Your task to perform on an android device: toggle notifications settings in the gmail app Image 0: 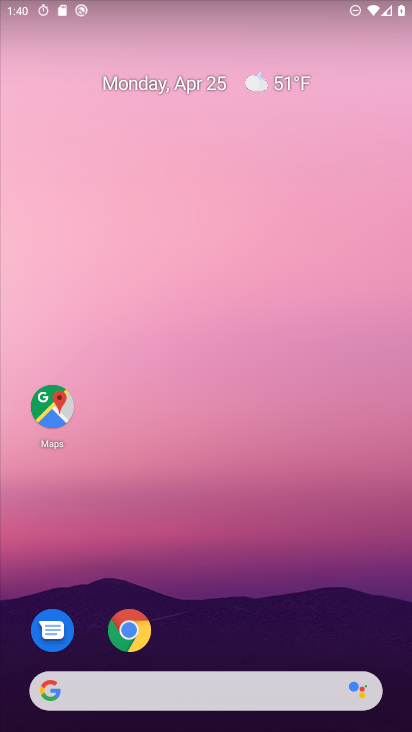
Step 0: drag from (208, 601) to (300, 285)
Your task to perform on an android device: toggle notifications settings in the gmail app Image 1: 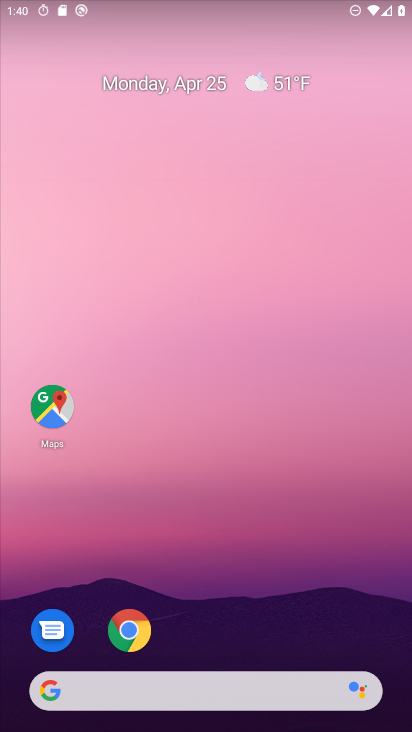
Step 1: click (261, 104)
Your task to perform on an android device: toggle notifications settings in the gmail app Image 2: 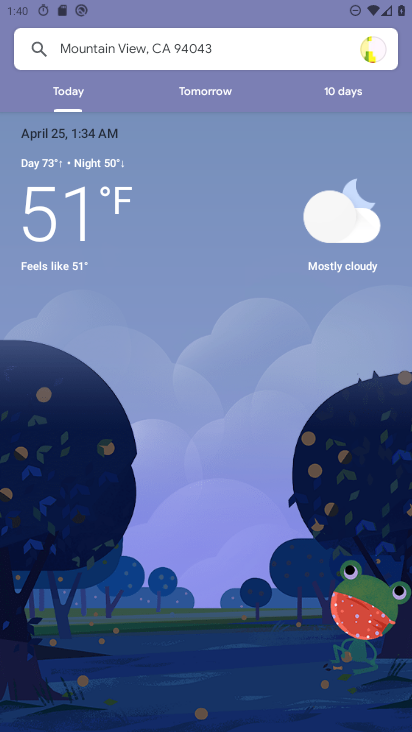
Step 2: press home button
Your task to perform on an android device: toggle notifications settings in the gmail app Image 3: 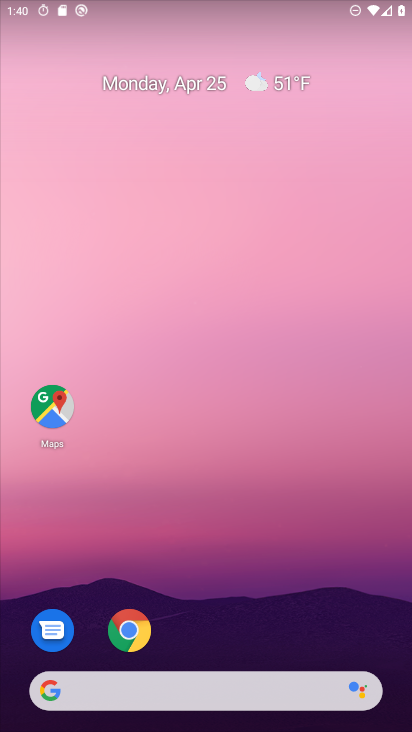
Step 3: drag from (219, 548) to (292, 125)
Your task to perform on an android device: toggle notifications settings in the gmail app Image 4: 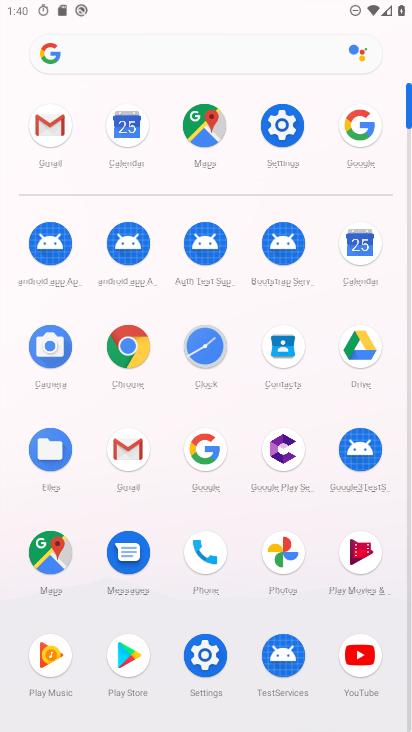
Step 4: click (125, 450)
Your task to perform on an android device: toggle notifications settings in the gmail app Image 5: 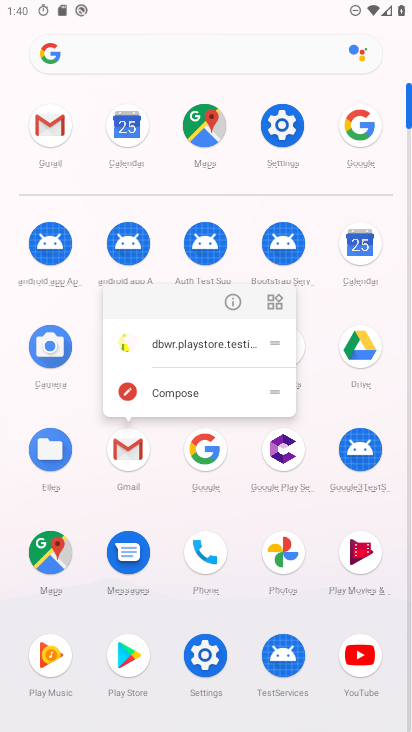
Step 5: click (231, 293)
Your task to perform on an android device: toggle notifications settings in the gmail app Image 6: 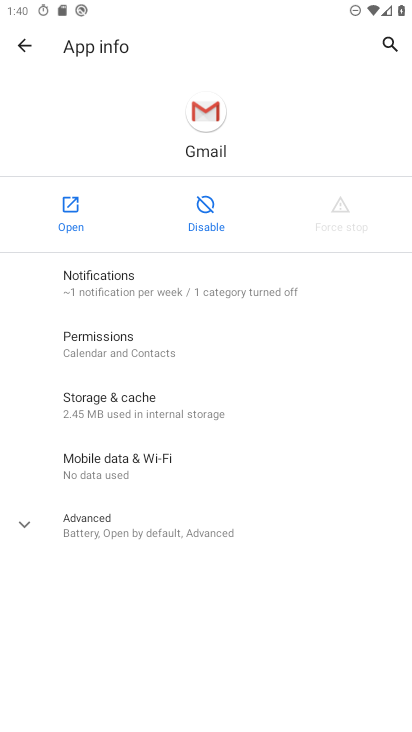
Step 6: click (77, 208)
Your task to perform on an android device: toggle notifications settings in the gmail app Image 7: 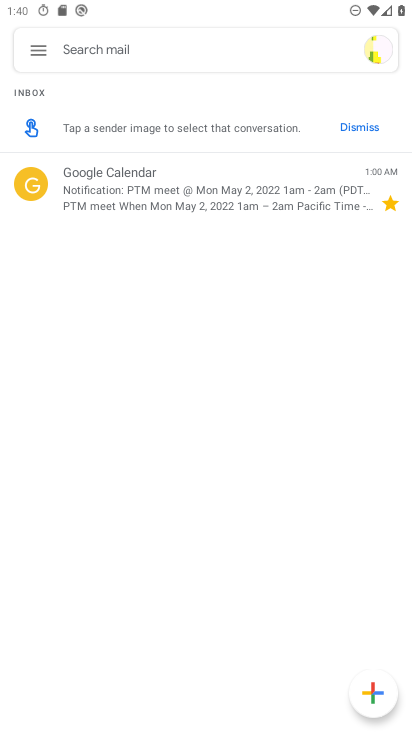
Step 7: drag from (190, 633) to (202, 279)
Your task to perform on an android device: toggle notifications settings in the gmail app Image 8: 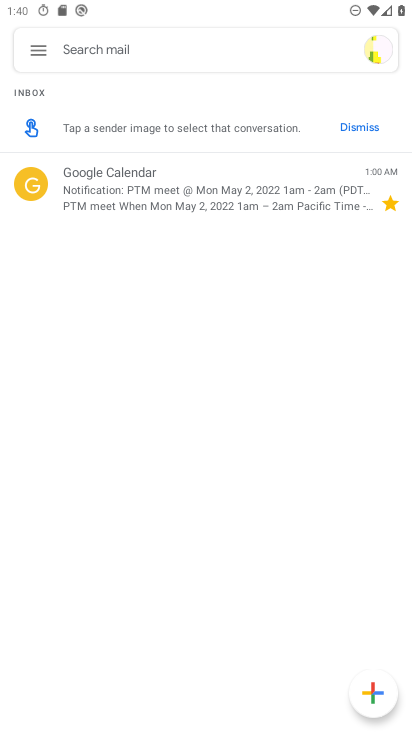
Step 8: click (41, 56)
Your task to perform on an android device: toggle notifications settings in the gmail app Image 9: 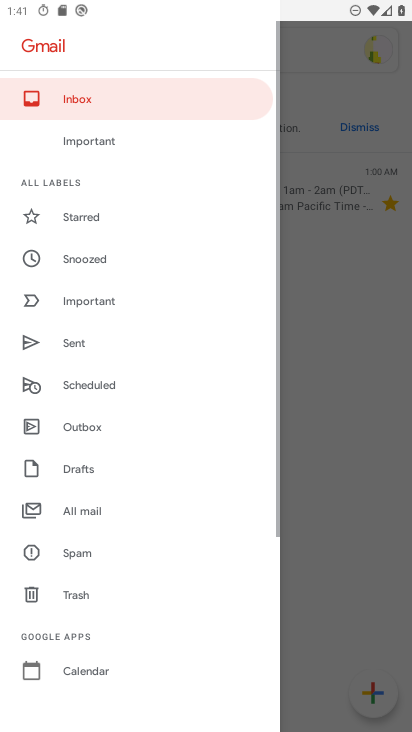
Step 9: drag from (129, 650) to (198, 139)
Your task to perform on an android device: toggle notifications settings in the gmail app Image 10: 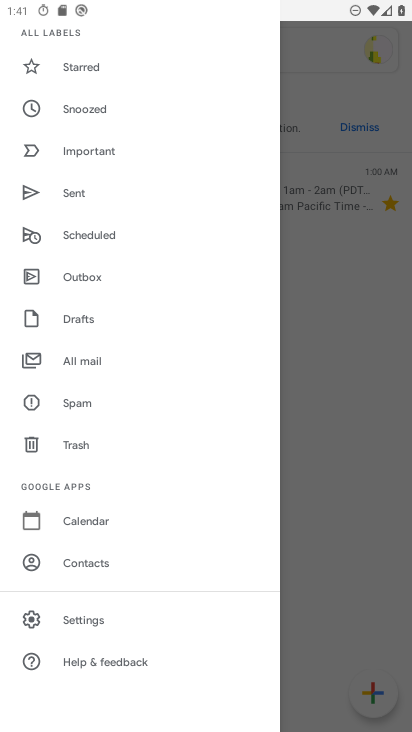
Step 10: click (112, 605)
Your task to perform on an android device: toggle notifications settings in the gmail app Image 11: 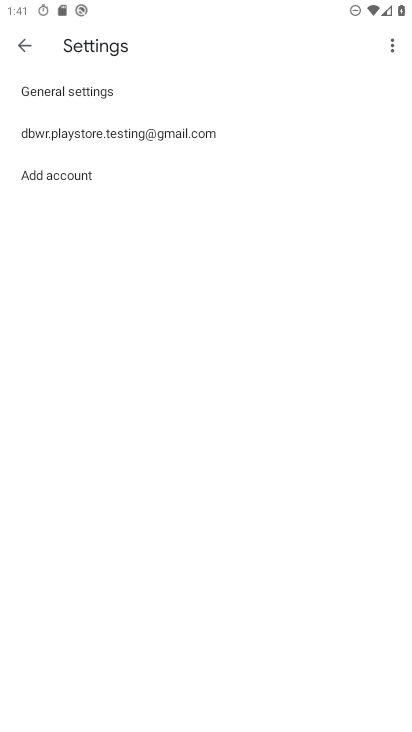
Step 11: click (164, 143)
Your task to perform on an android device: toggle notifications settings in the gmail app Image 12: 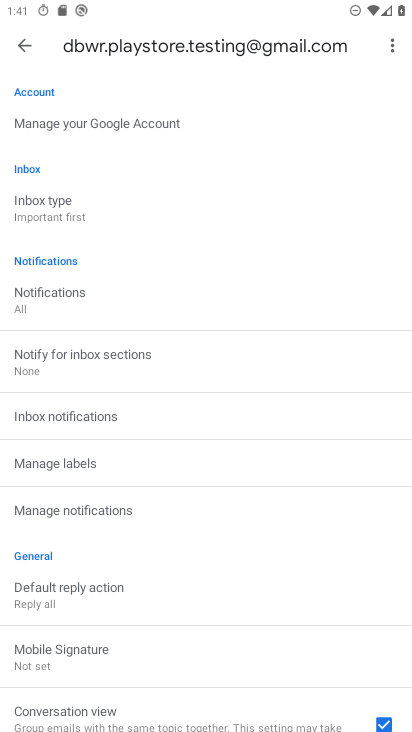
Step 12: click (94, 507)
Your task to perform on an android device: toggle notifications settings in the gmail app Image 13: 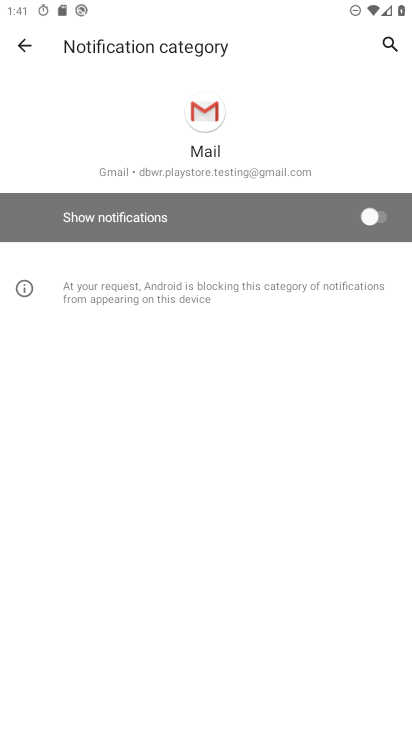
Step 13: click (347, 218)
Your task to perform on an android device: toggle notifications settings in the gmail app Image 14: 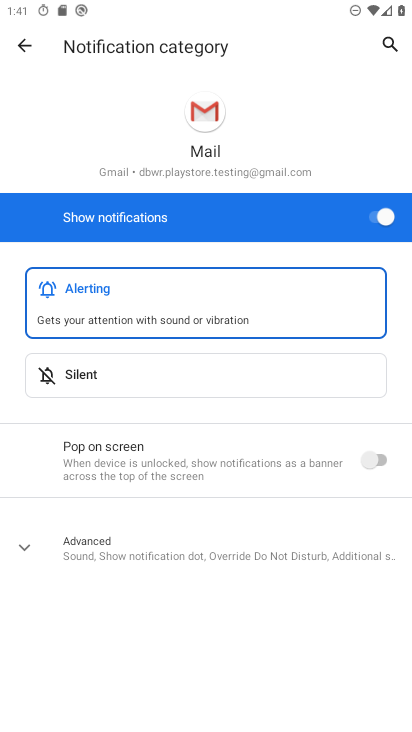
Step 14: task complete